Your task to perform on an android device: check data usage Image 0: 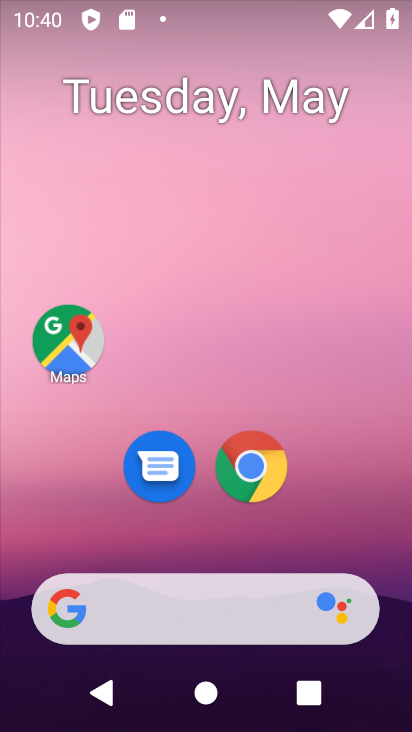
Step 0: drag from (381, 543) to (323, 188)
Your task to perform on an android device: check data usage Image 1: 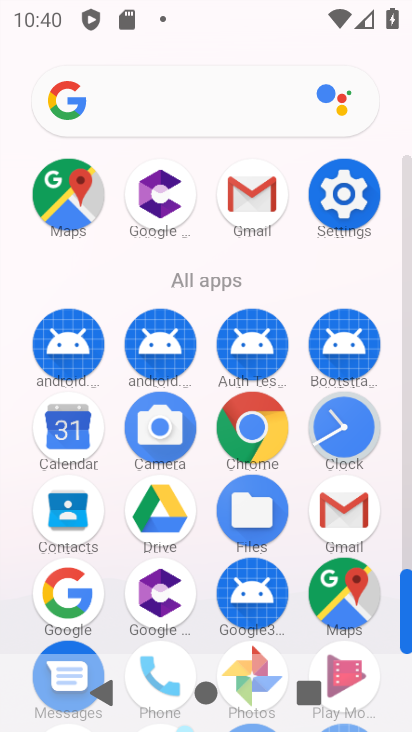
Step 1: click (361, 203)
Your task to perform on an android device: check data usage Image 2: 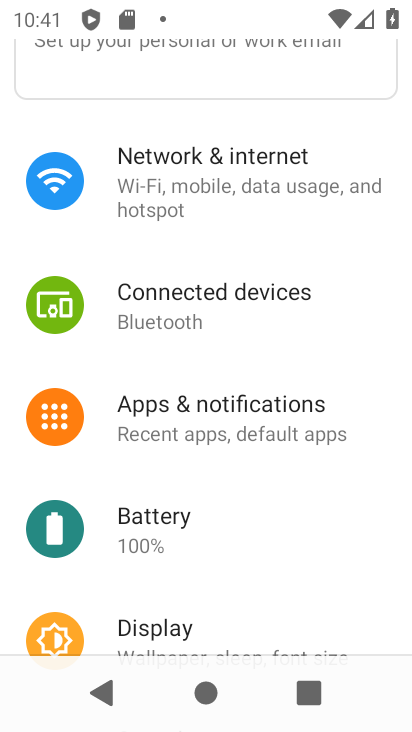
Step 2: click (260, 197)
Your task to perform on an android device: check data usage Image 3: 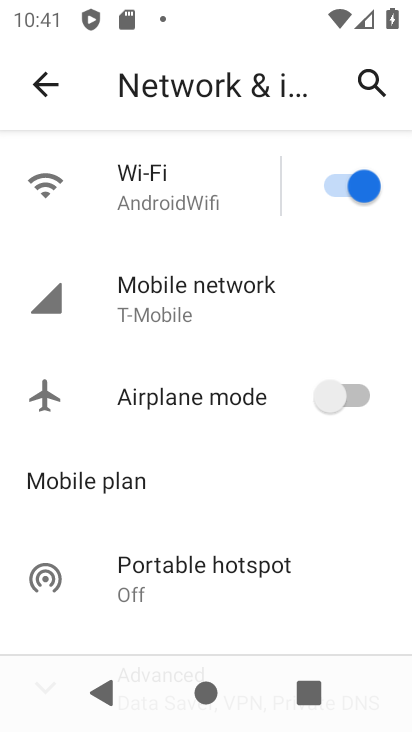
Step 3: click (136, 180)
Your task to perform on an android device: check data usage Image 4: 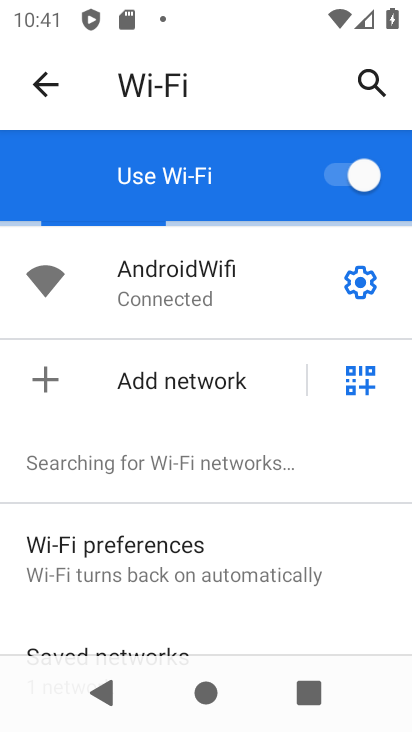
Step 4: drag from (192, 628) to (162, 220)
Your task to perform on an android device: check data usage Image 5: 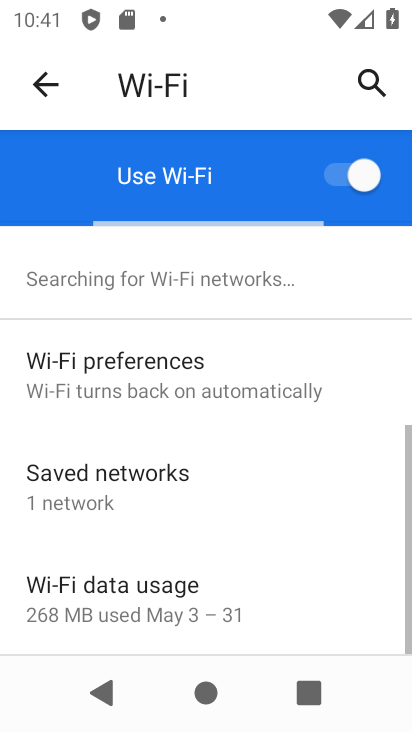
Step 5: click (190, 597)
Your task to perform on an android device: check data usage Image 6: 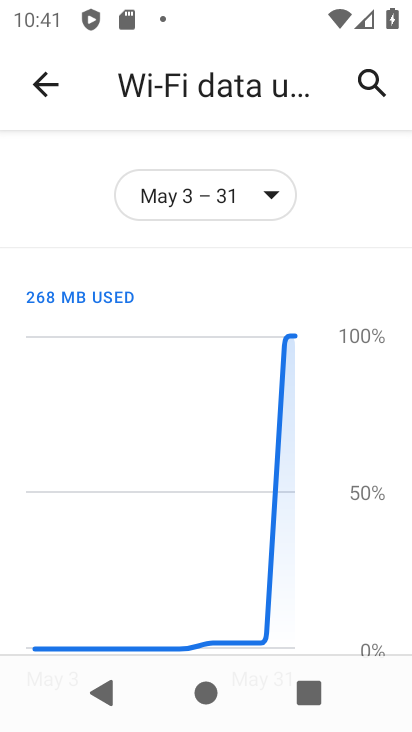
Step 6: task complete